Your task to perform on an android device: refresh tabs in the chrome app Image 0: 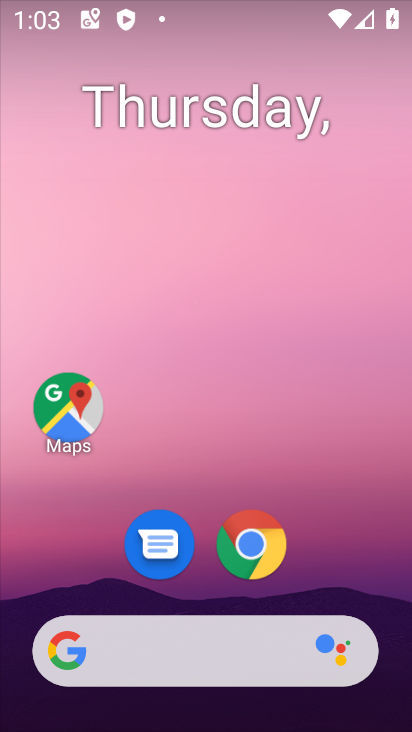
Step 0: click (241, 548)
Your task to perform on an android device: refresh tabs in the chrome app Image 1: 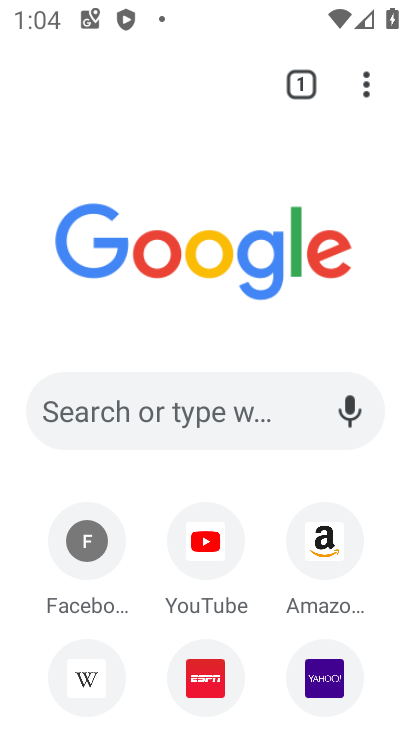
Step 1: click (367, 92)
Your task to perform on an android device: refresh tabs in the chrome app Image 2: 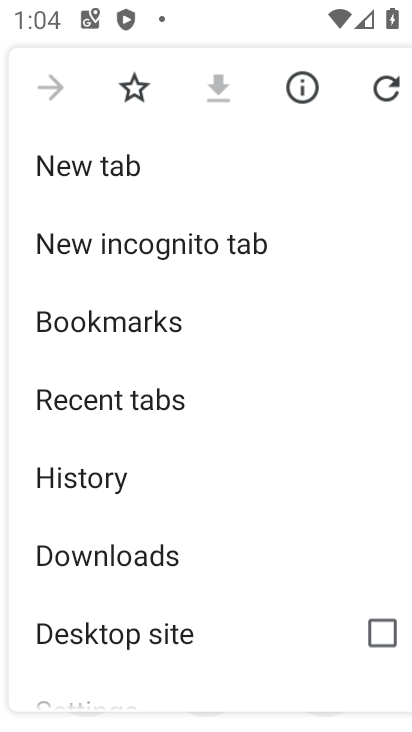
Step 2: click (393, 85)
Your task to perform on an android device: refresh tabs in the chrome app Image 3: 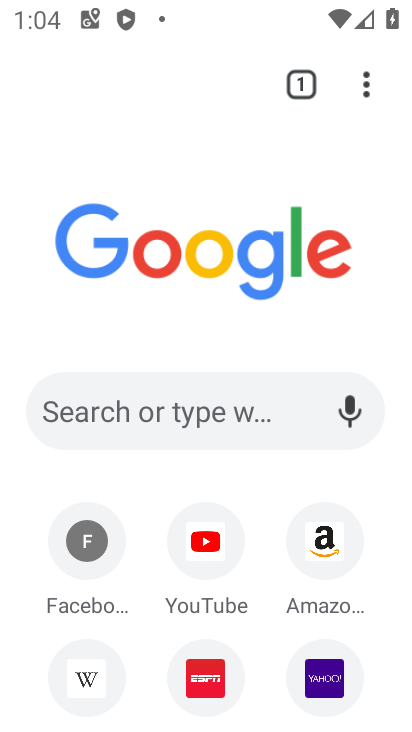
Step 3: task complete